Your task to perform on an android device: star an email in the gmail app Image 0: 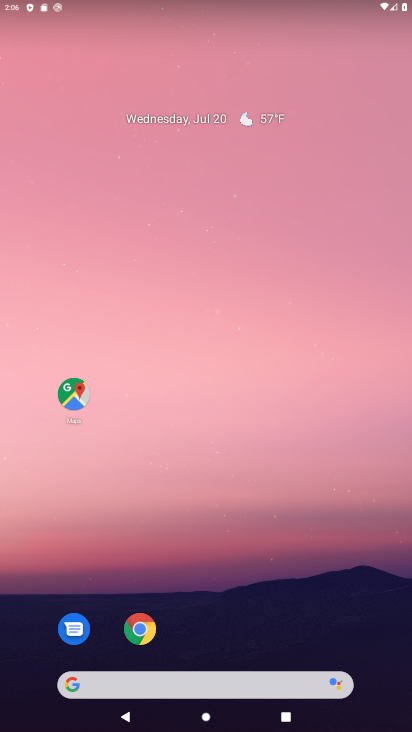
Step 0: drag from (196, 620) to (210, 131)
Your task to perform on an android device: star an email in the gmail app Image 1: 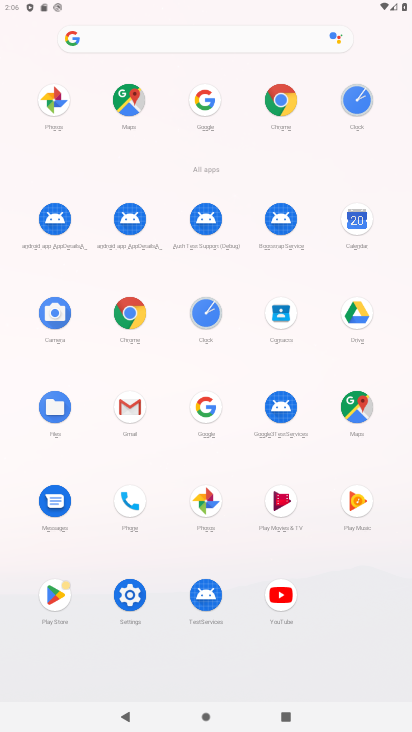
Step 1: click (145, 403)
Your task to perform on an android device: star an email in the gmail app Image 2: 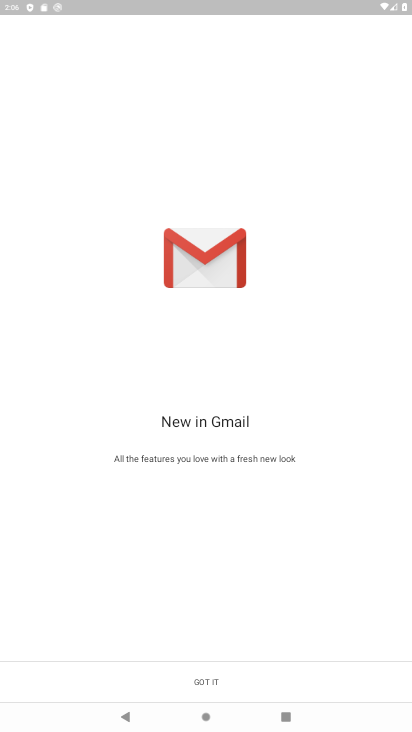
Step 2: click (267, 689)
Your task to perform on an android device: star an email in the gmail app Image 3: 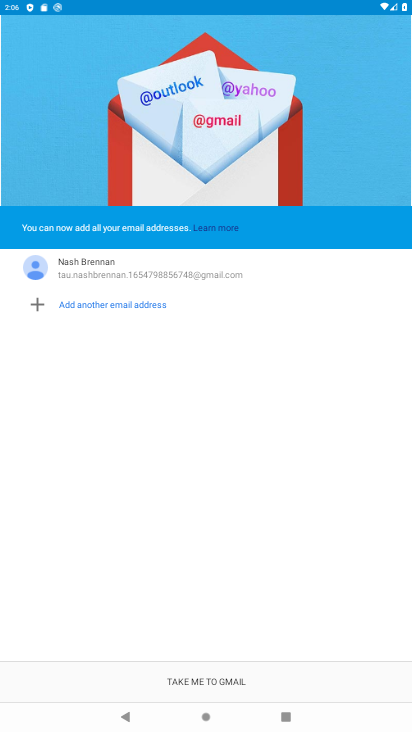
Step 3: click (267, 689)
Your task to perform on an android device: star an email in the gmail app Image 4: 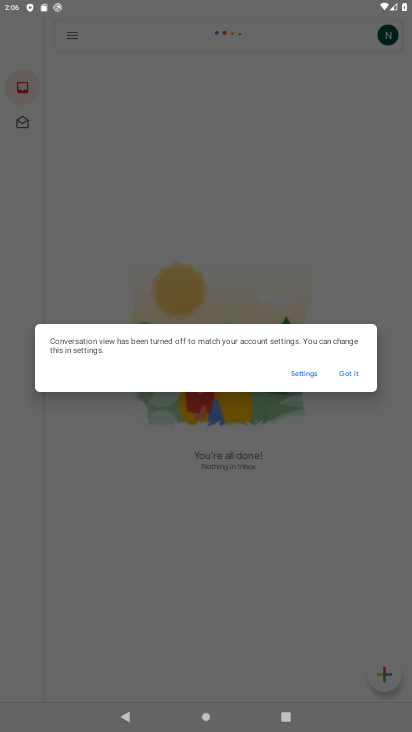
Step 4: click (344, 372)
Your task to perform on an android device: star an email in the gmail app Image 5: 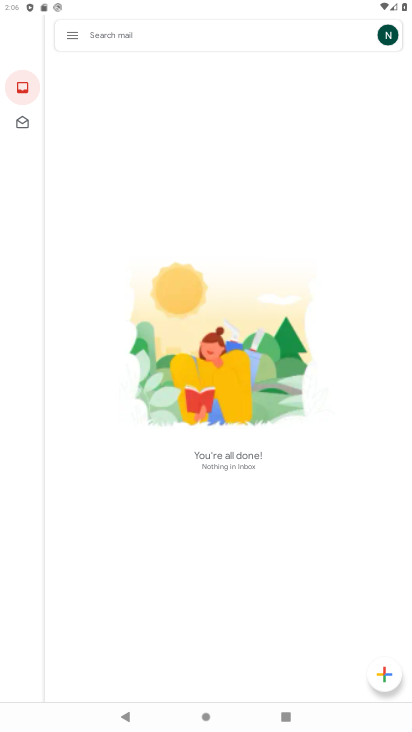
Step 5: click (70, 40)
Your task to perform on an android device: star an email in the gmail app Image 6: 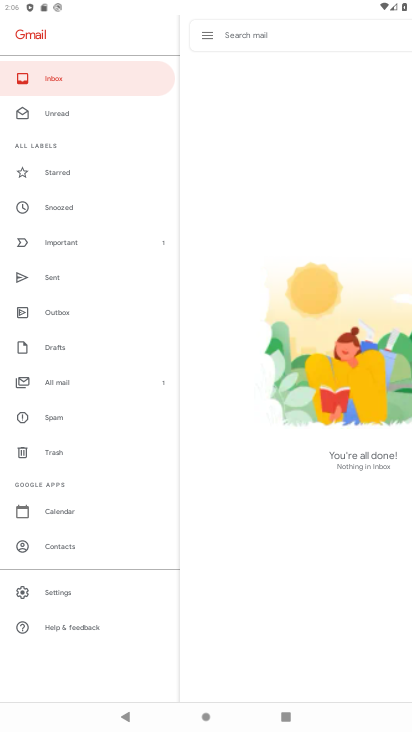
Step 6: click (59, 387)
Your task to perform on an android device: star an email in the gmail app Image 7: 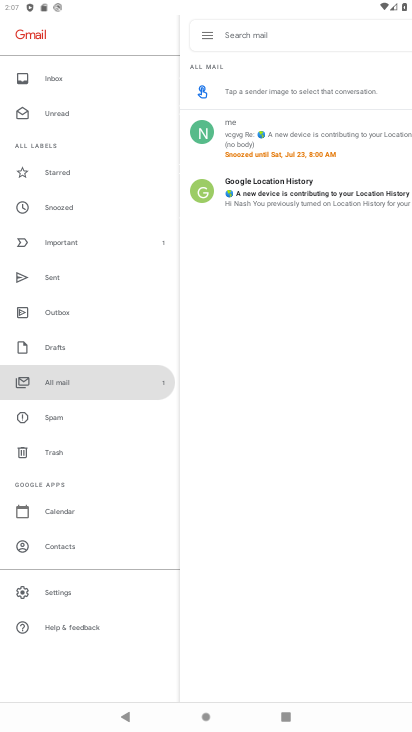
Step 7: click (211, 373)
Your task to perform on an android device: star an email in the gmail app Image 8: 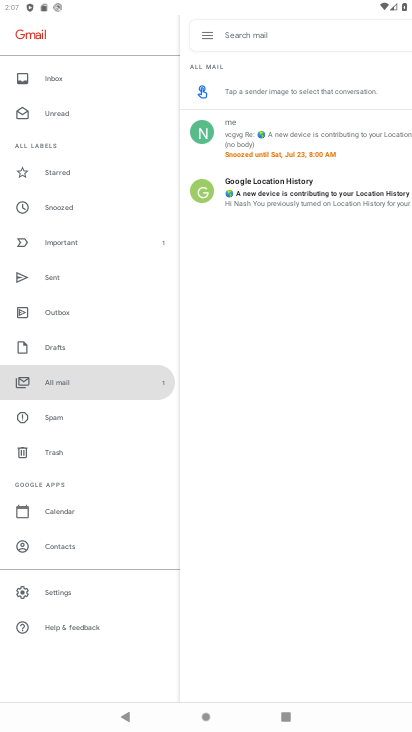
Step 8: click (306, 142)
Your task to perform on an android device: star an email in the gmail app Image 9: 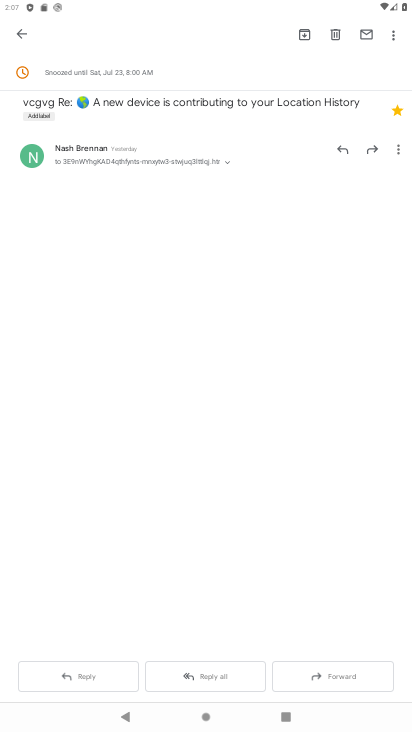
Step 9: task complete